Your task to perform on an android device: Open notification settings Image 0: 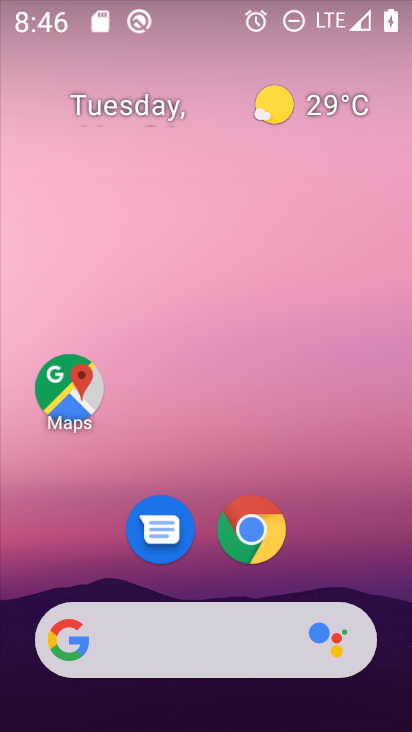
Step 0: drag from (398, 636) to (323, 43)
Your task to perform on an android device: Open notification settings Image 1: 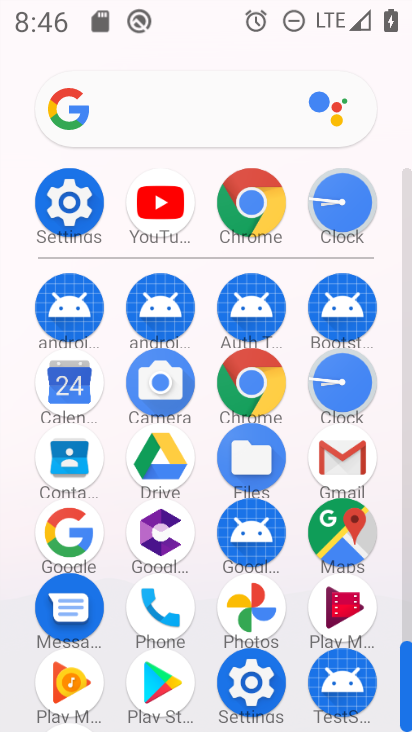
Step 1: click (65, 204)
Your task to perform on an android device: Open notification settings Image 2: 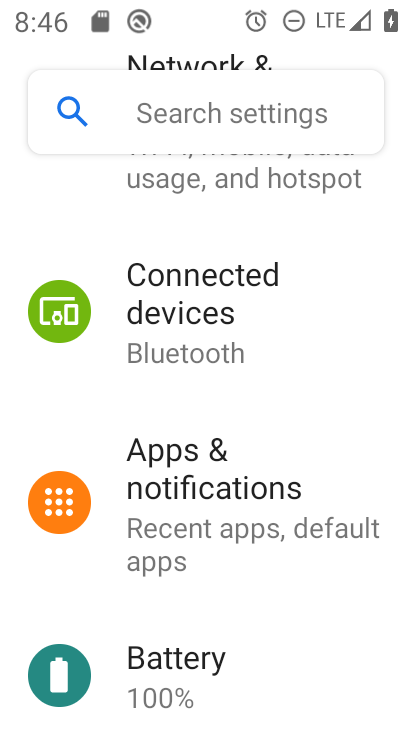
Step 2: click (207, 571)
Your task to perform on an android device: Open notification settings Image 3: 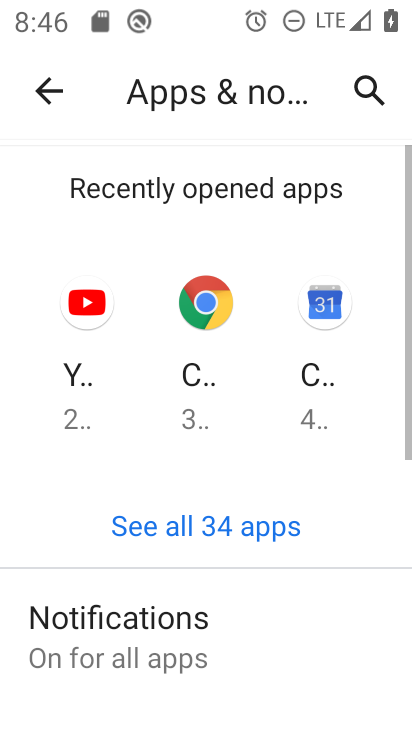
Step 3: click (181, 631)
Your task to perform on an android device: Open notification settings Image 4: 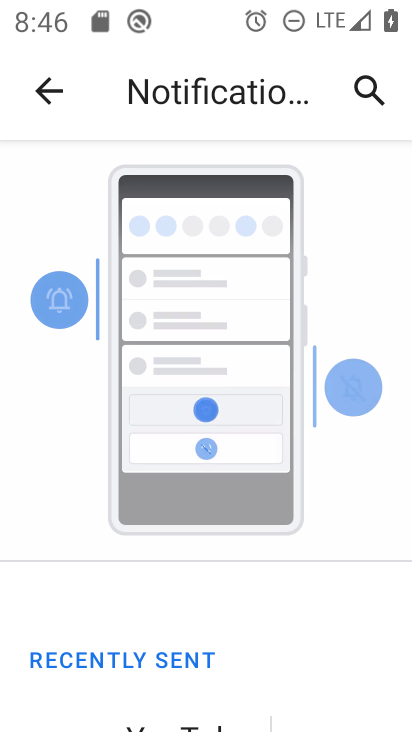
Step 4: task complete